Your task to perform on an android device: Open network settings Image 0: 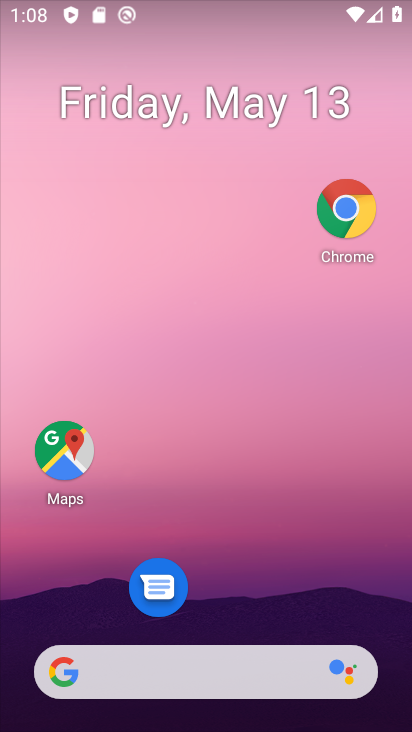
Step 0: drag from (207, 645) to (328, 101)
Your task to perform on an android device: Open network settings Image 1: 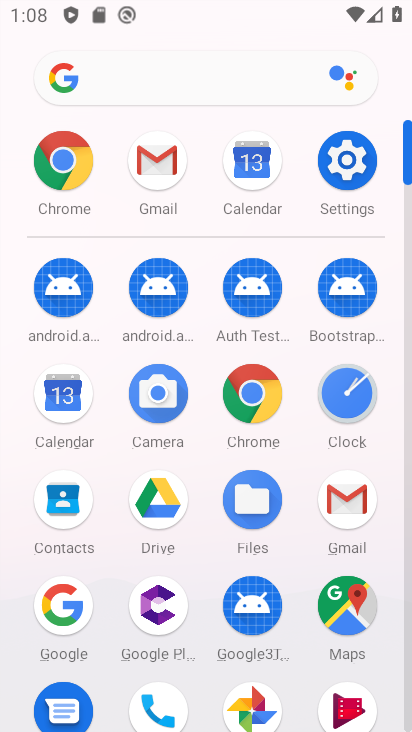
Step 1: click (358, 168)
Your task to perform on an android device: Open network settings Image 2: 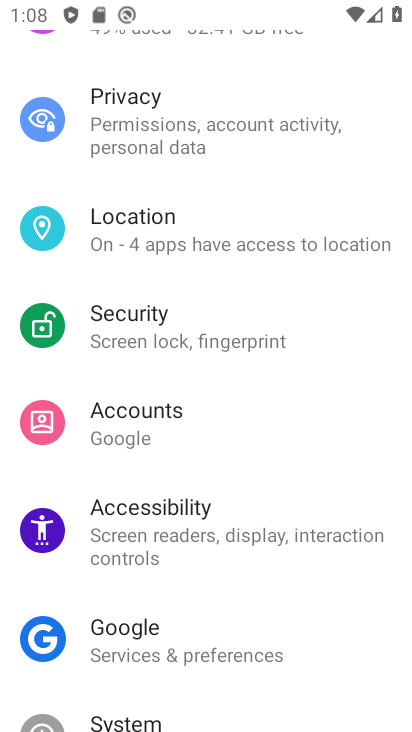
Step 2: drag from (261, 183) to (133, 707)
Your task to perform on an android device: Open network settings Image 3: 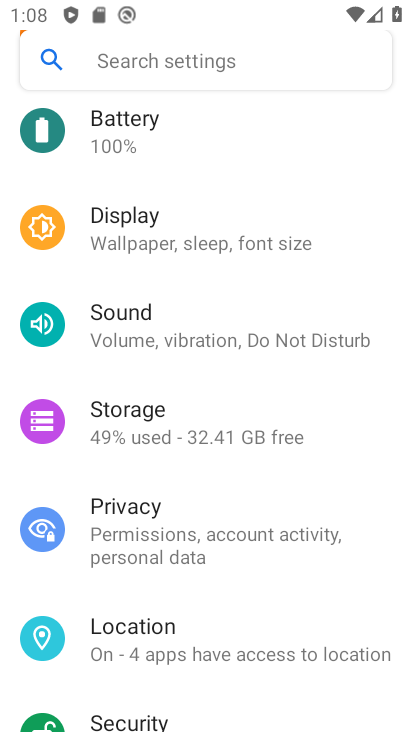
Step 3: drag from (206, 198) to (210, 694)
Your task to perform on an android device: Open network settings Image 4: 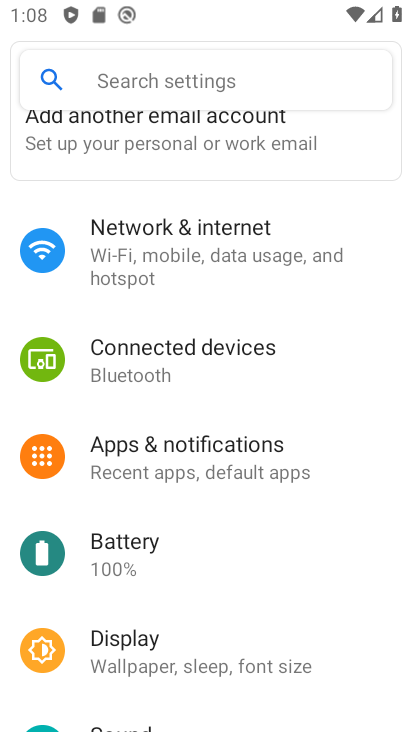
Step 4: click (152, 233)
Your task to perform on an android device: Open network settings Image 5: 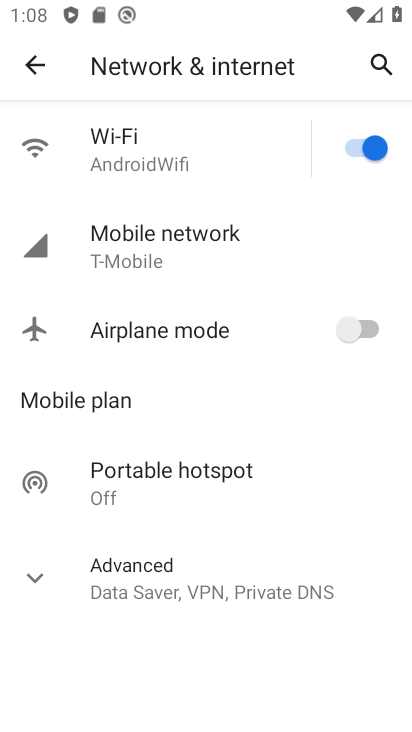
Step 5: task complete